Your task to perform on an android device: Search for vegetarian restaurants on Maps Image 0: 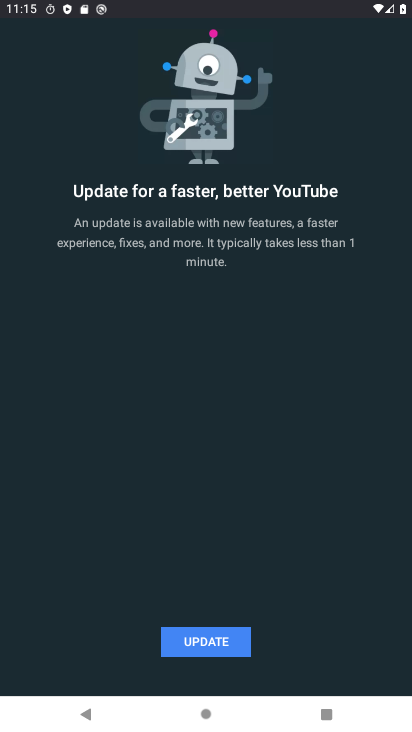
Step 0: press home button
Your task to perform on an android device: Search for vegetarian restaurants on Maps Image 1: 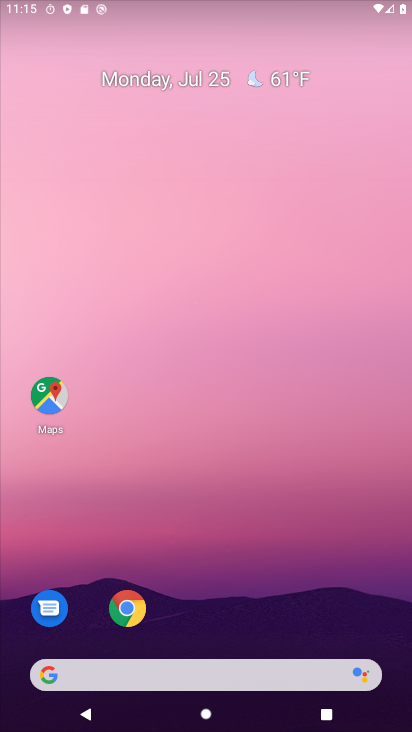
Step 1: drag from (295, 666) to (306, 64)
Your task to perform on an android device: Search for vegetarian restaurants on Maps Image 2: 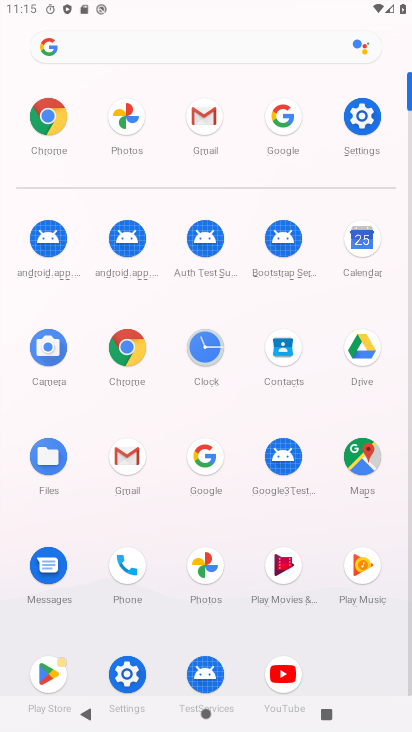
Step 2: click (358, 466)
Your task to perform on an android device: Search for vegetarian restaurants on Maps Image 3: 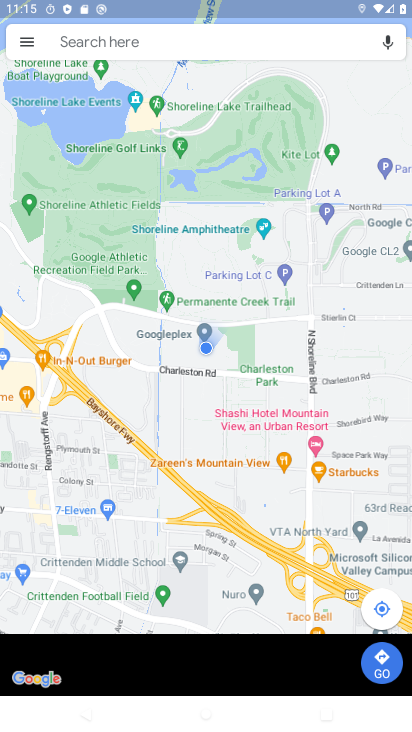
Step 3: click (73, 52)
Your task to perform on an android device: Search for vegetarian restaurants on Maps Image 4: 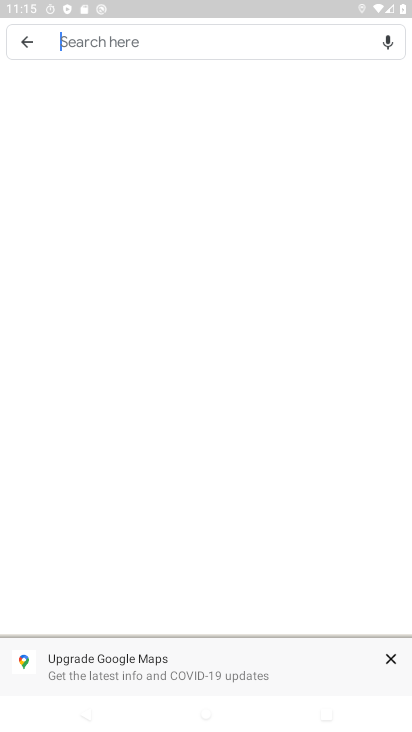
Step 4: click (97, 42)
Your task to perform on an android device: Search for vegetarian restaurants on Maps Image 5: 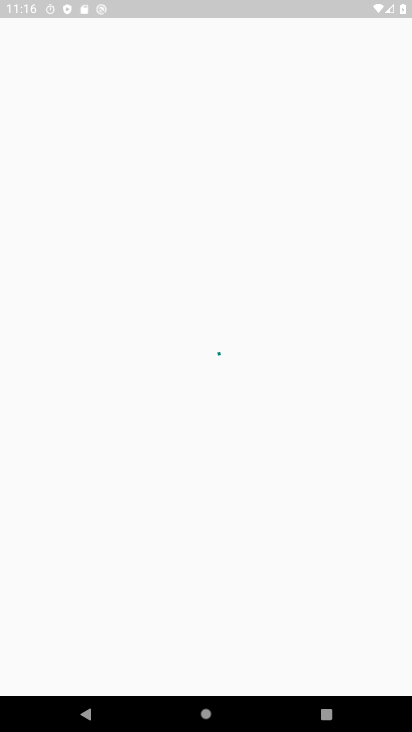
Step 5: press back button
Your task to perform on an android device: Search for vegetarian restaurants on Maps Image 6: 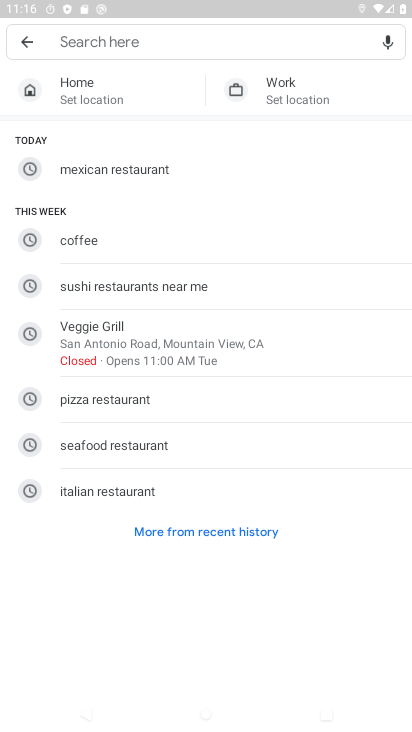
Step 6: click (202, 37)
Your task to perform on an android device: Search for vegetarian restaurants on Maps Image 7: 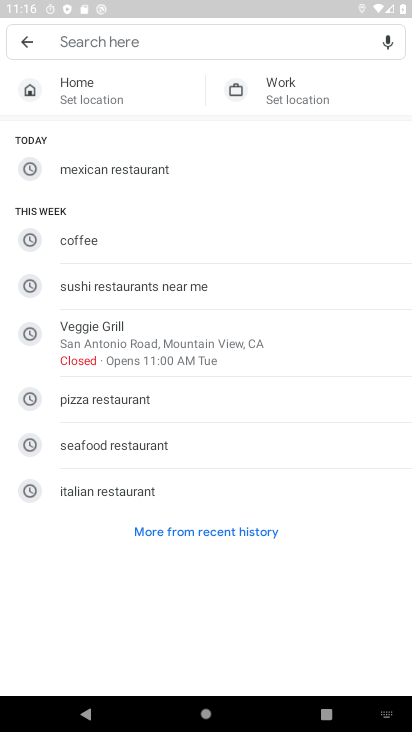
Step 7: type " vegetarian restaurants "
Your task to perform on an android device: Search for vegetarian restaurants on Maps Image 8: 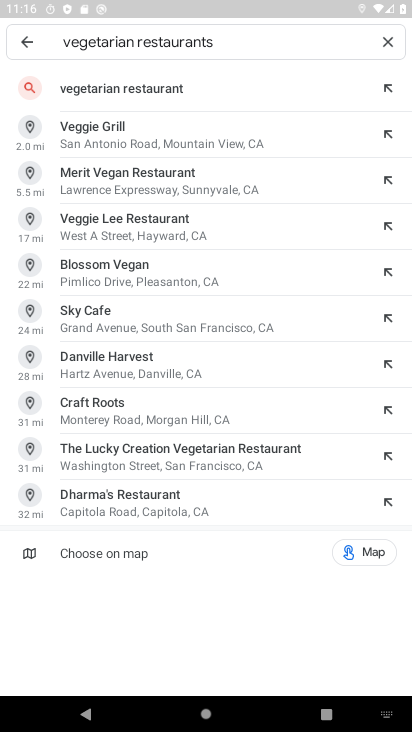
Step 8: click (144, 91)
Your task to perform on an android device: Search for vegetarian restaurants on Maps Image 9: 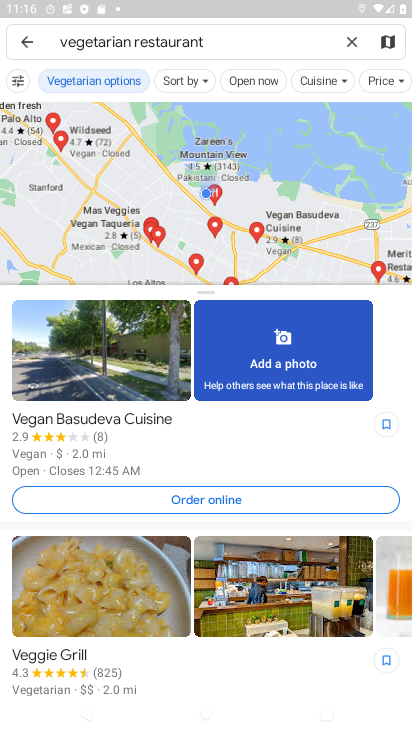
Step 9: task complete